Your task to perform on an android device: turn on sleep mode Image 0: 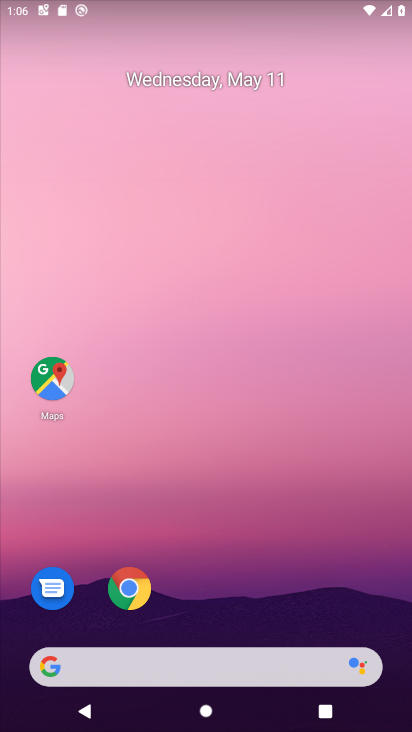
Step 0: drag from (219, 650) to (264, 348)
Your task to perform on an android device: turn on sleep mode Image 1: 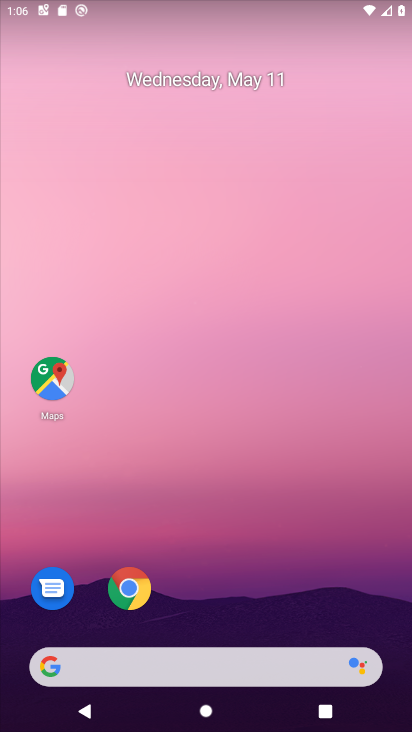
Step 1: drag from (219, 650) to (255, 255)
Your task to perform on an android device: turn on sleep mode Image 2: 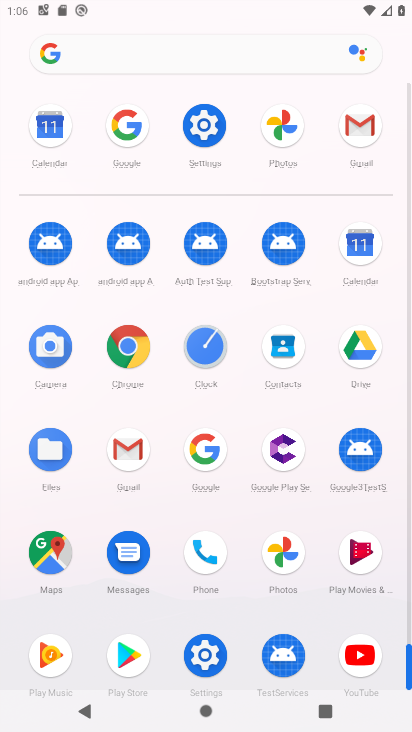
Step 2: click (193, 132)
Your task to perform on an android device: turn on sleep mode Image 3: 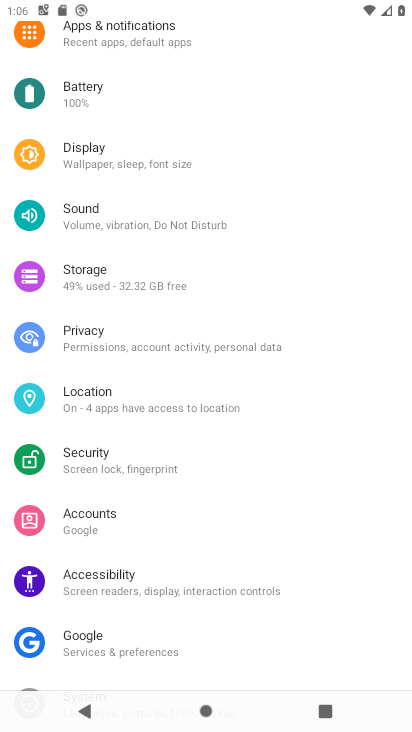
Step 3: click (102, 138)
Your task to perform on an android device: turn on sleep mode Image 4: 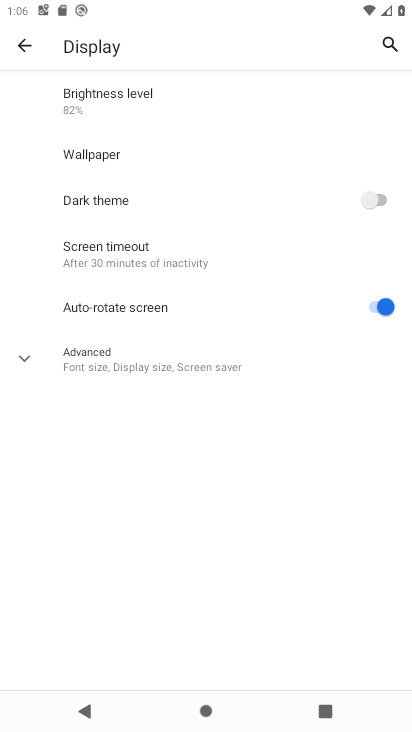
Step 4: click (84, 198)
Your task to perform on an android device: turn on sleep mode Image 5: 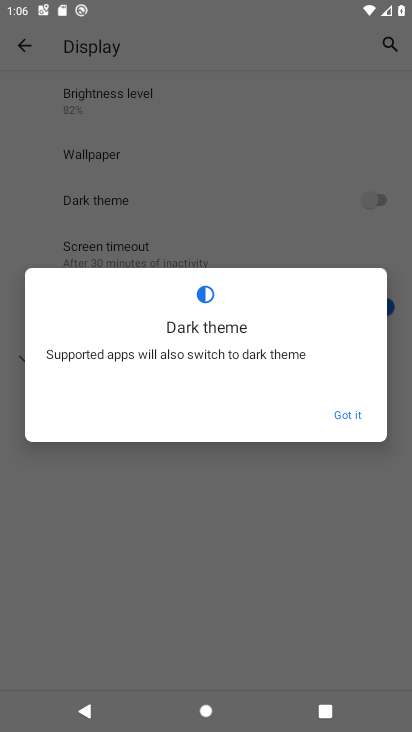
Step 5: click (346, 422)
Your task to perform on an android device: turn on sleep mode Image 6: 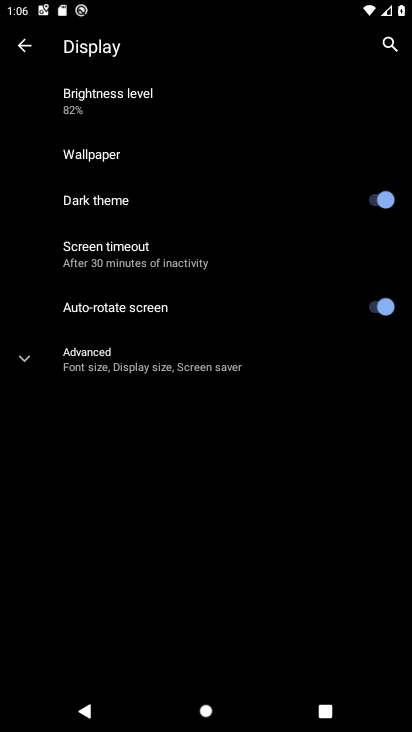
Step 6: task complete